Your task to perform on an android device: What's the weather going to be tomorrow? Image 0: 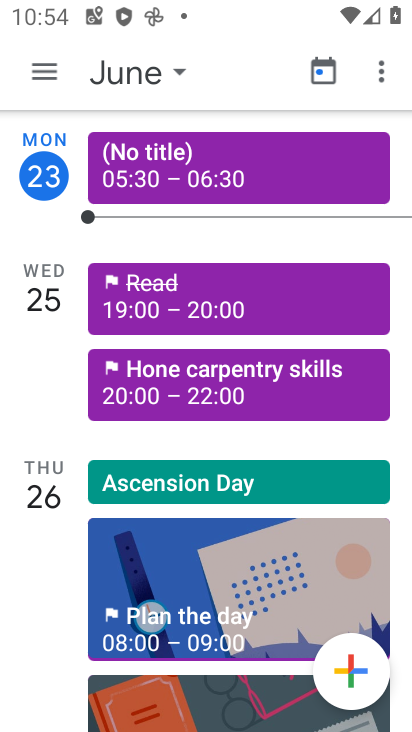
Step 0: press home button
Your task to perform on an android device: What's the weather going to be tomorrow? Image 1: 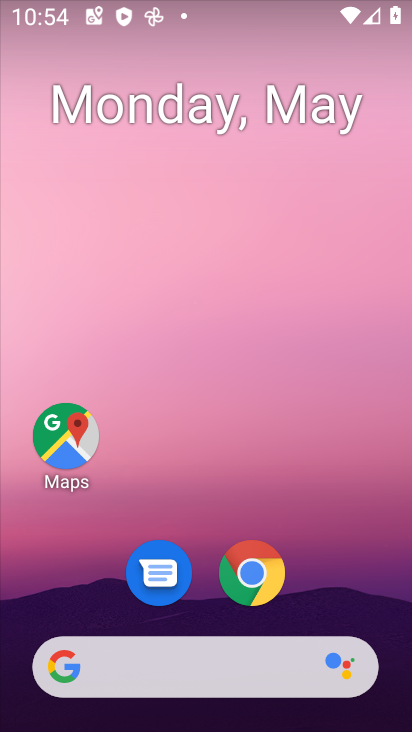
Step 1: click (246, 672)
Your task to perform on an android device: What's the weather going to be tomorrow? Image 2: 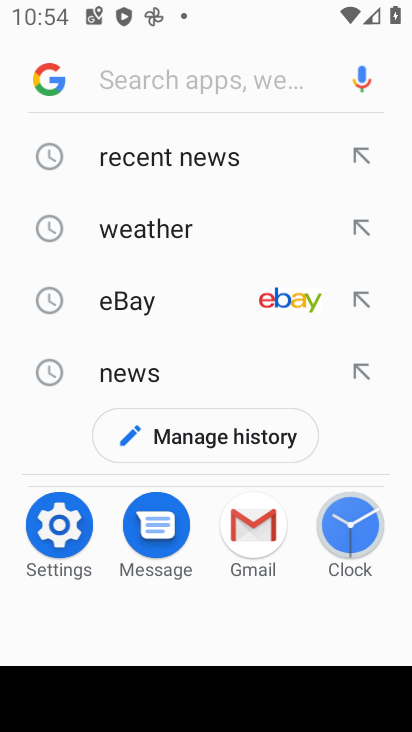
Step 2: click (138, 225)
Your task to perform on an android device: What's the weather going to be tomorrow? Image 3: 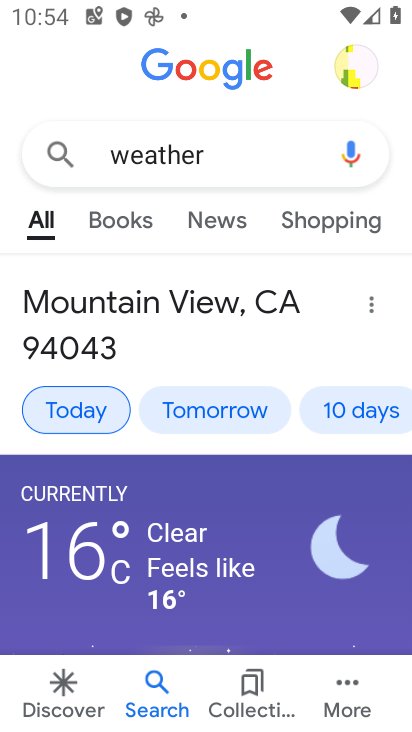
Step 3: click (198, 411)
Your task to perform on an android device: What's the weather going to be tomorrow? Image 4: 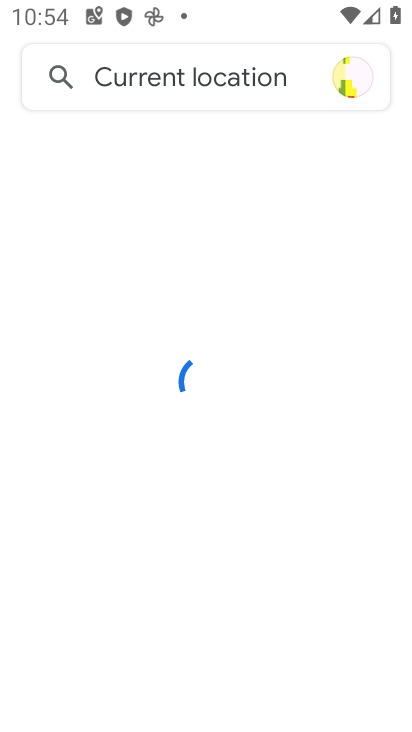
Step 4: task complete